Your task to perform on an android device: Go to wifi settings Image 0: 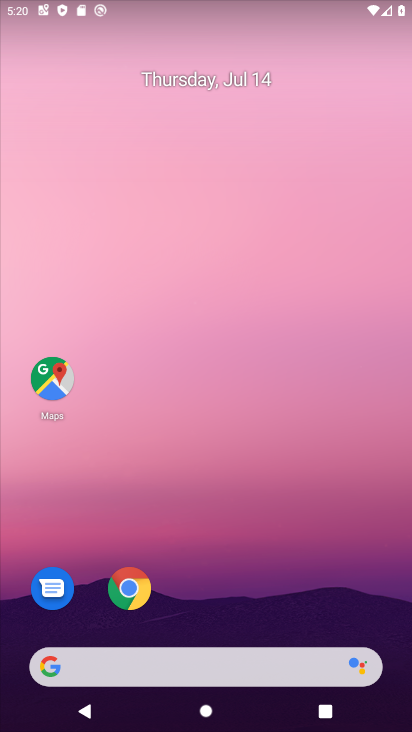
Step 0: drag from (225, 657) to (247, 251)
Your task to perform on an android device: Go to wifi settings Image 1: 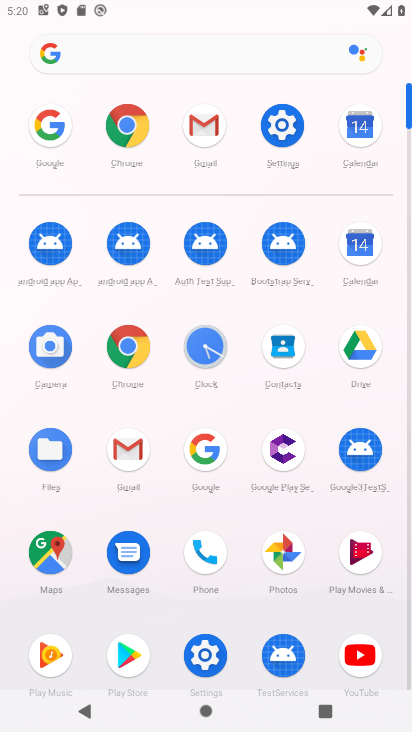
Step 1: click (281, 123)
Your task to perform on an android device: Go to wifi settings Image 2: 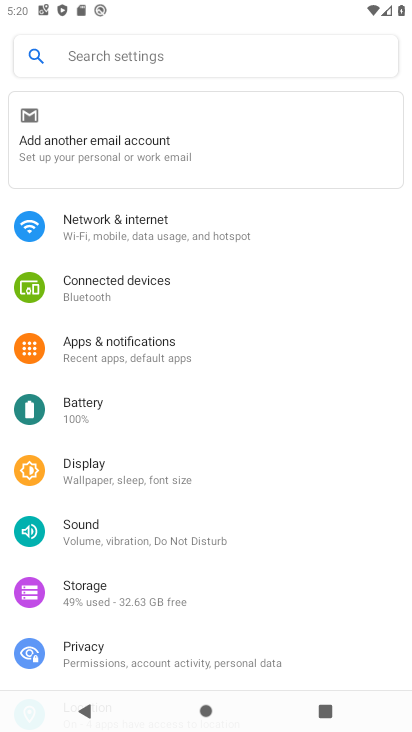
Step 2: click (130, 225)
Your task to perform on an android device: Go to wifi settings Image 3: 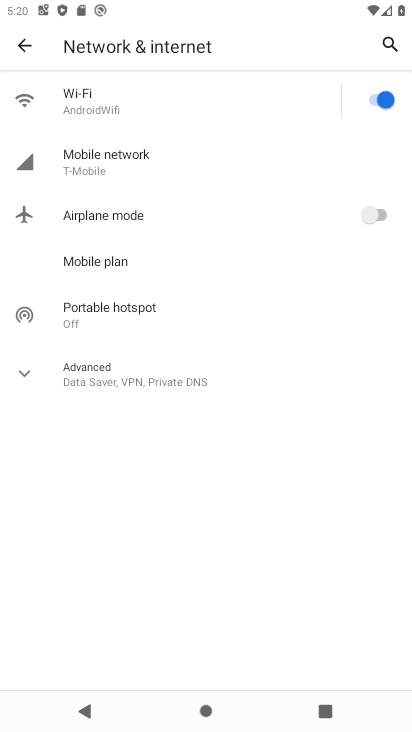
Step 3: click (117, 97)
Your task to perform on an android device: Go to wifi settings Image 4: 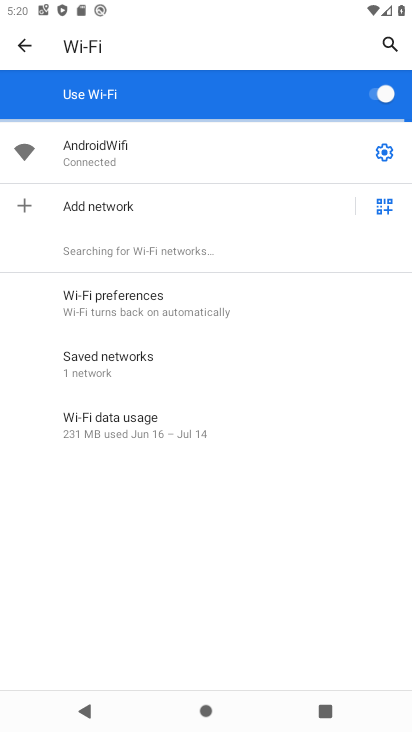
Step 4: click (376, 152)
Your task to perform on an android device: Go to wifi settings Image 5: 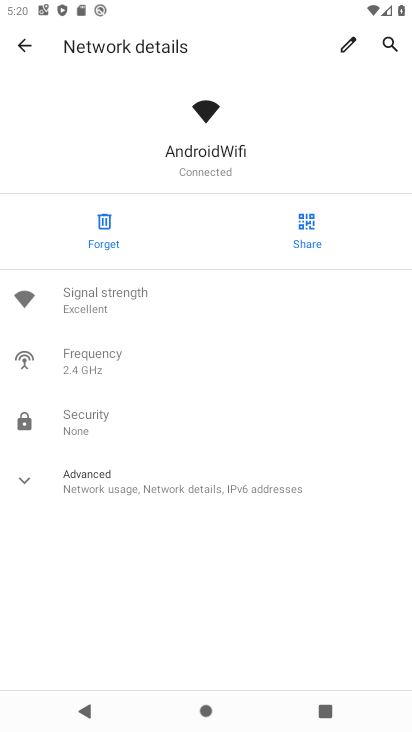
Step 5: click (145, 481)
Your task to perform on an android device: Go to wifi settings Image 6: 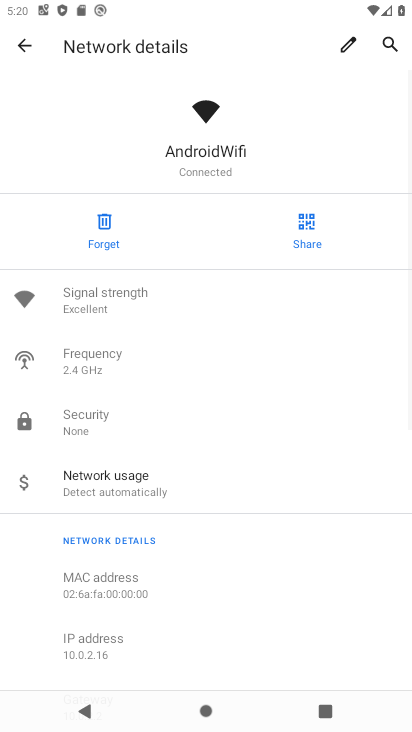
Step 6: task complete